Your task to perform on an android device: Show me productivity apps on the Play Store Image 0: 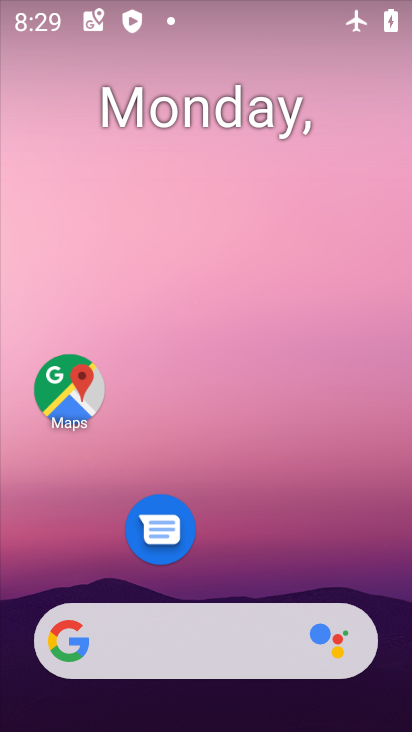
Step 0: drag from (195, 567) to (251, 176)
Your task to perform on an android device: Show me productivity apps on the Play Store Image 1: 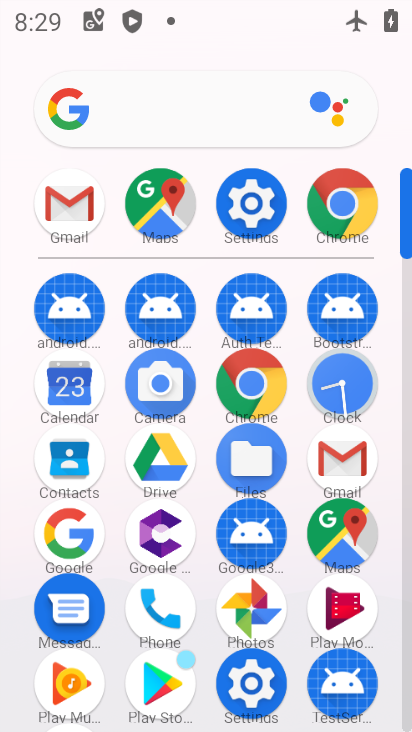
Step 1: click (167, 674)
Your task to perform on an android device: Show me productivity apps on the Play Store Image 2: 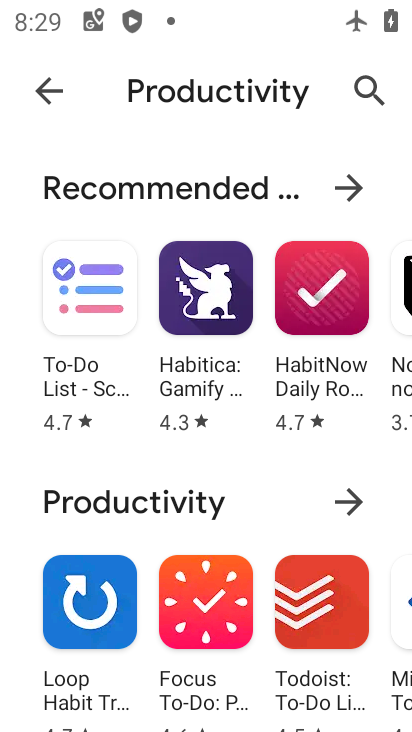
Step 2: task complete